Your task to perform on an android device: Open the phone app and click the voicemail tab. Image 0: 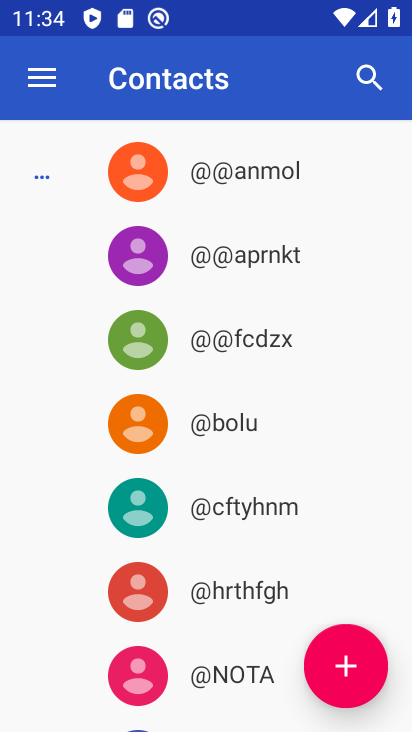
Step 0: press home button
Your task to perform on an android device: Open the phone app and click the voicemail tab. Image 1: 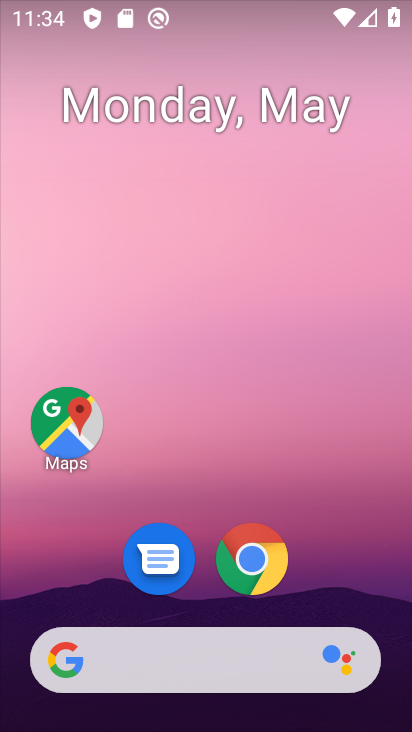
Step 1: drag from (341, 597) to (240, 52)
Your task to perform on an android device: Open the phone app and click the voicemail tab. Image 2: 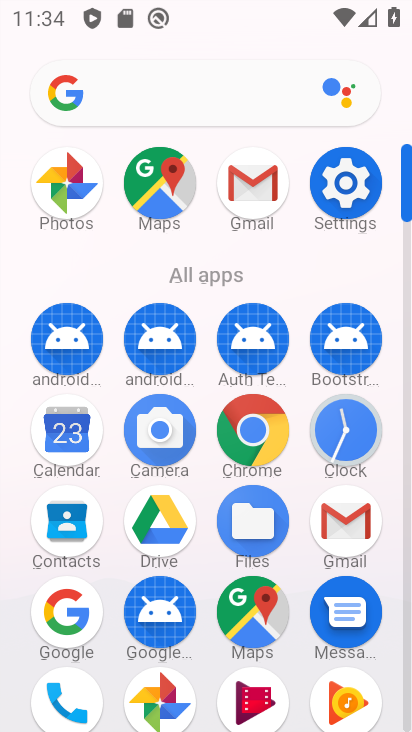
Step 2: click (70, 681)
Your task to perform on an android device: Open the phone app and click the voicemail tab. Image 3: 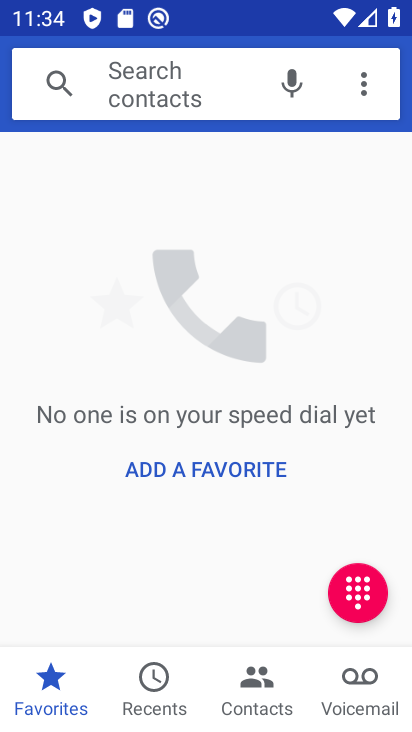
Step 3: click (384, 665)
Your task to perform on an android device: Open the phone app and click the voicemail tab. Image 4: 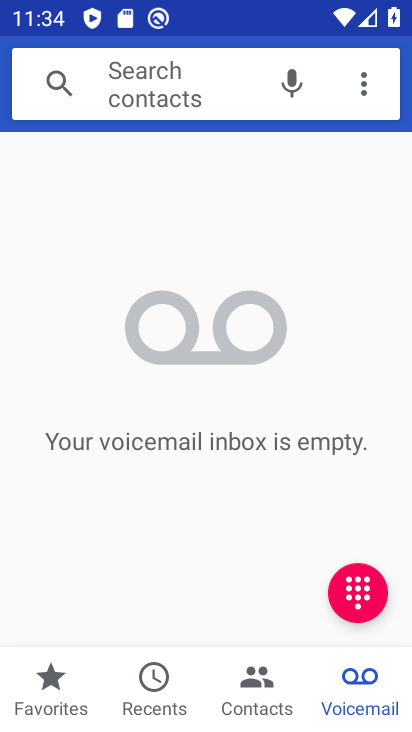
Step 4: task complete